Your task to perform on an android device: see tabs open on other devices in the chrome app Image 0: 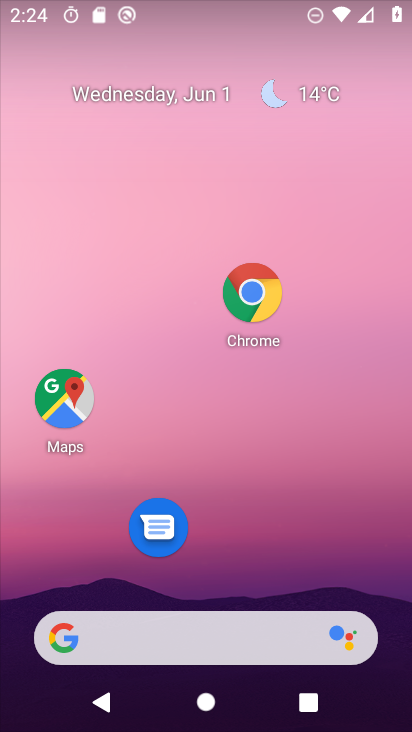
Step 0: drag from (193, 605) to (206, 216)
Your task to perform on an android device: see tabs open on other devices in the chrome app Image 1: 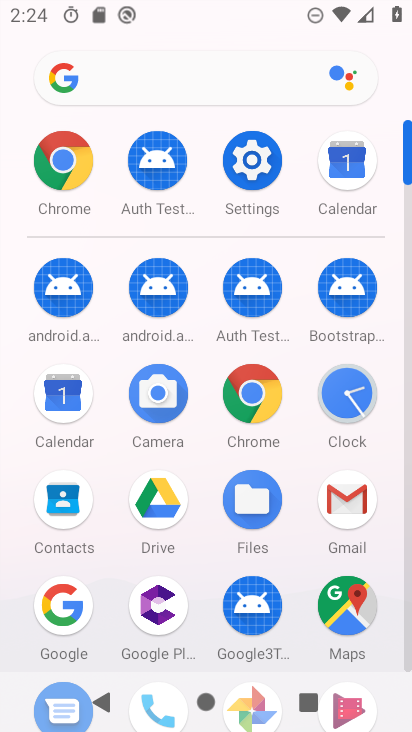
Step 1: click (257, 418)
Your task to perform on an android device: see tabs open on other devices in the chrome app Image 2: 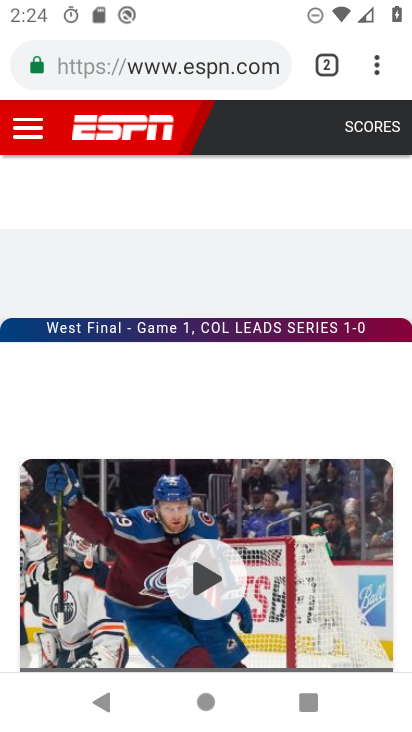
Step 2: task complete